Your task to perform on an android device: open a bookmark in the chrome app Image 0: 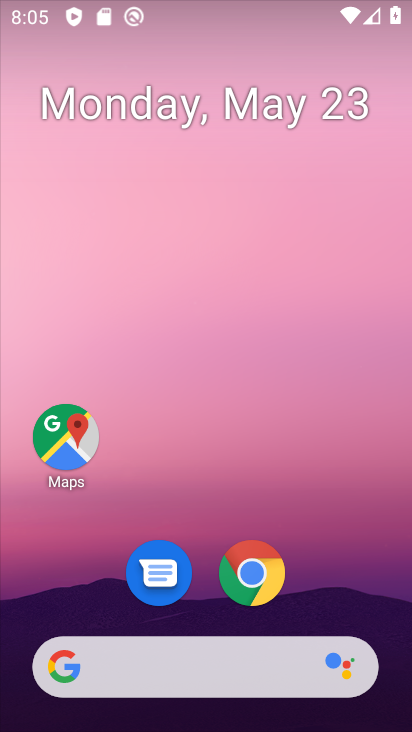
Step 0: press home button
Your task to perform on an android device: open a bookmark in the chrome app Image 1: 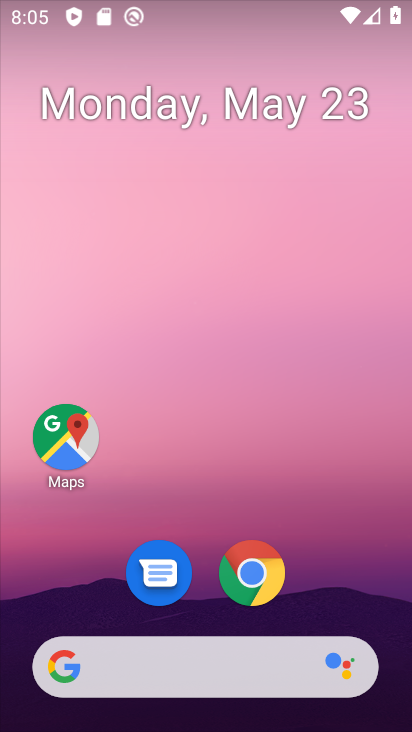
Step 1: click (250, 566)
Your task to perform on an android device: open a bookmark in the chrome app Image 2: 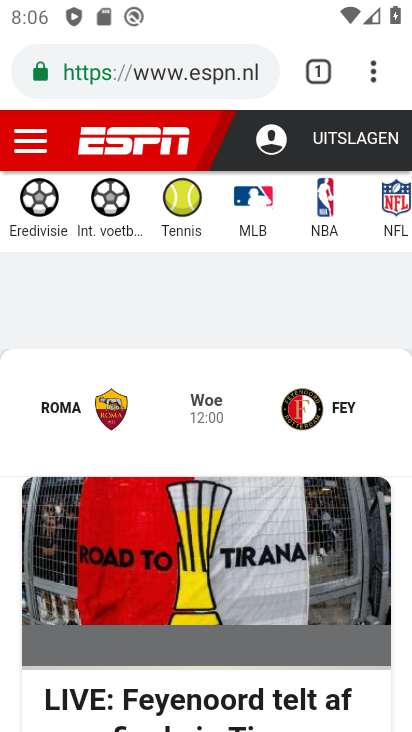
Step 2: click (371, 76)
Your task to perform on an android device: open a bookmark in the chrome app Image 3: 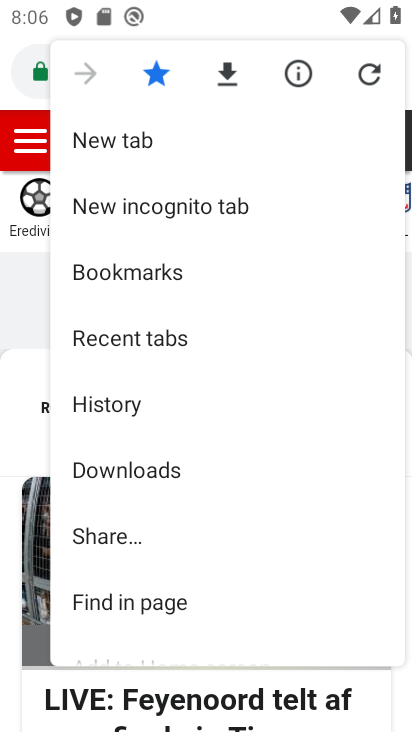
Step 3: click (193, 262)
Your task to perform on an android device: open a bookmark in the chrome app Image 4: 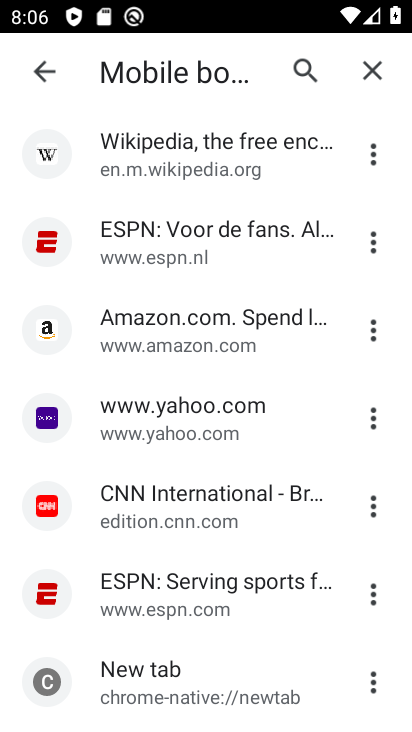
Step 4: click (201, 591)
Your task to perform on an android device: open a bookmark in the chrome app Image 5: 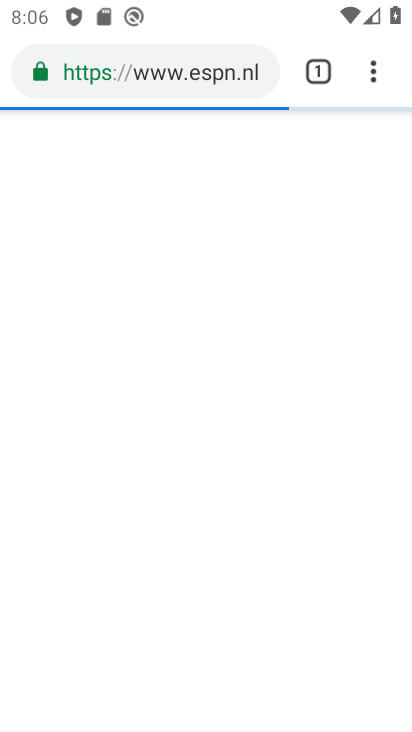
Step 5: task complete